Your task to perform on an android device: Open privacy settings Image 0: 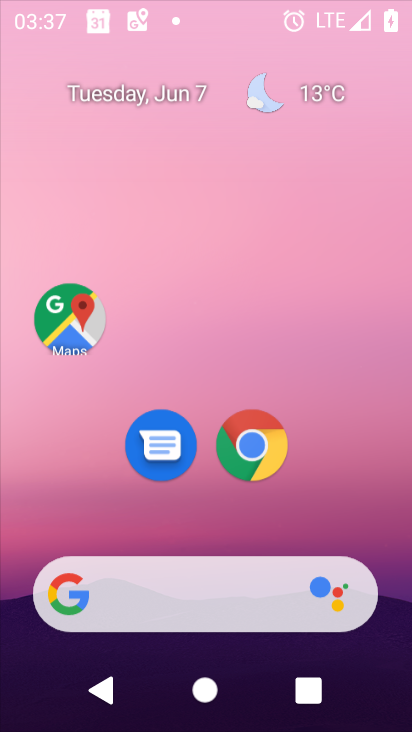
Step 0: drag from (254, 688) to (335, 75)
Your task to perform on an android device: Open privacy settings Image 1: 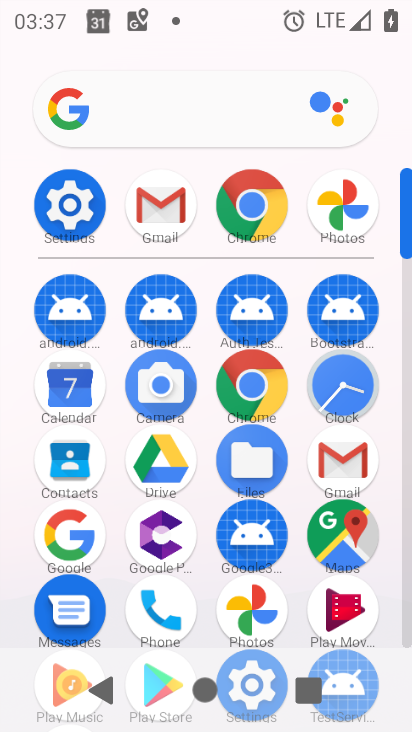
Step 1: click (68, 203)
Your task to perform on an android device: Open privacy settings Image 2: 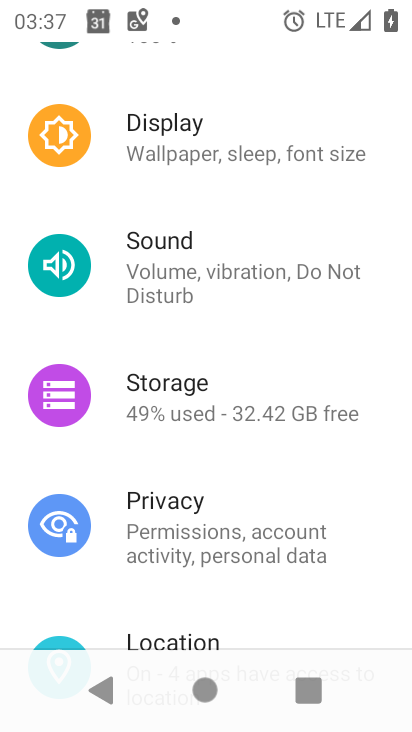
Step 2: click (228, 527)
Your task to perform on an android device: Open privacy settings Image 3: 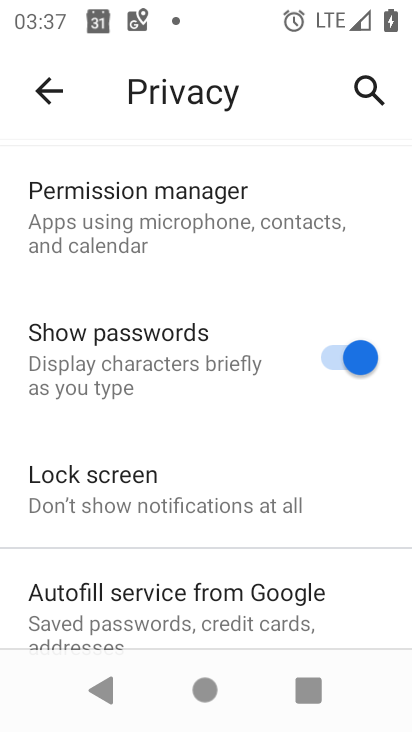
Step 3: task complete